Your task to perform on an android device: Show me recent news Image 0: 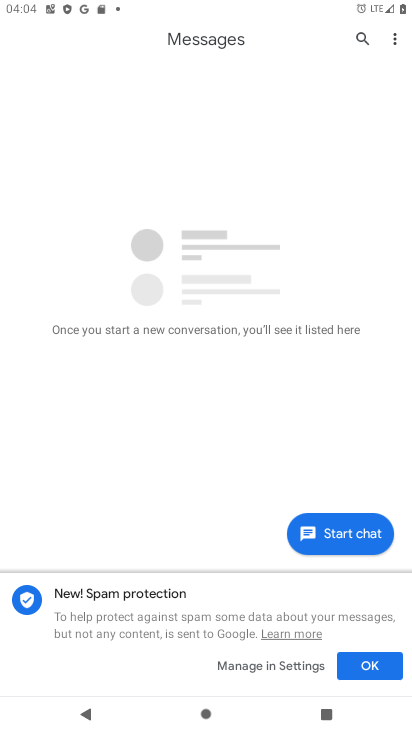
Step 0: press home button
Your task to perform on an android device: Show me recent news Image 1: 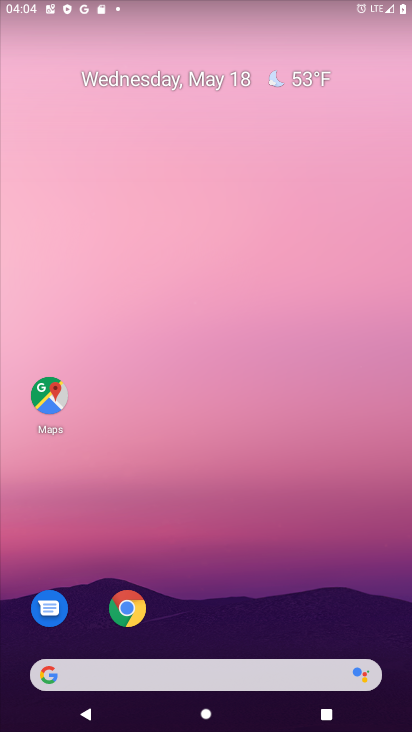
Step 1: click (127, 676)
Your task to perform on an android device: Show me recent news Image 2: 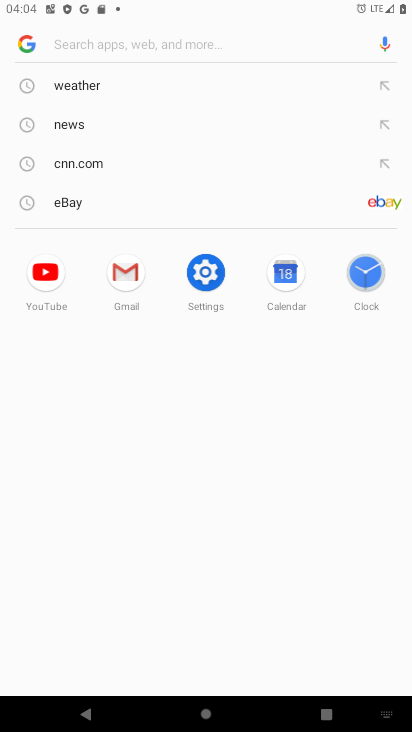
Step 2: click (80, 43)
Your task to perform on an android device: Show me recent news Image 3: 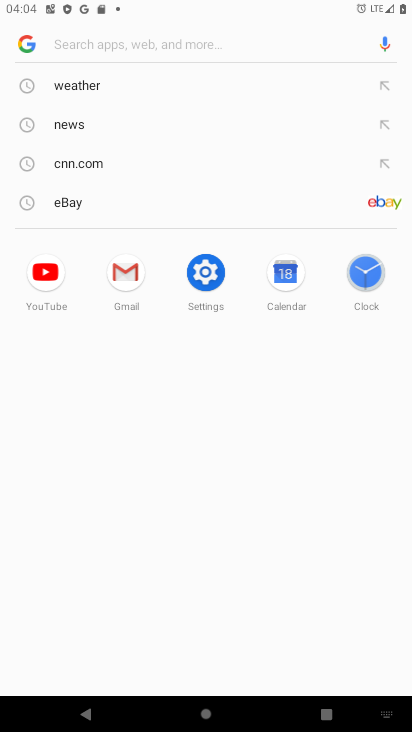
Step 3: type "recent news"
Your task to perform on an android device: Show me recent news Image 4: 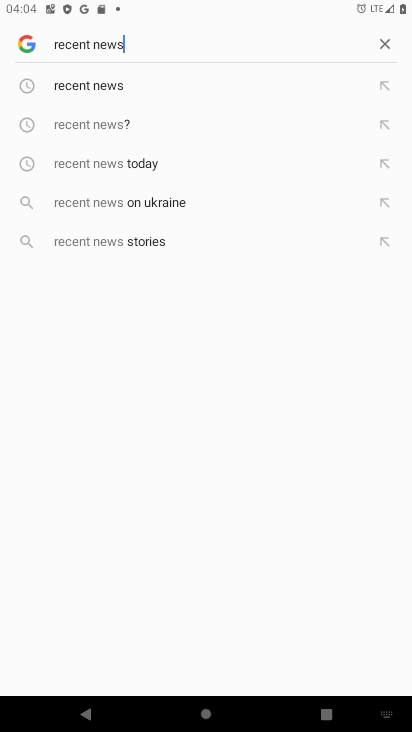
Step 4: click (81, 91)
Your task to perform on an android device: Show me recent news Image 5: 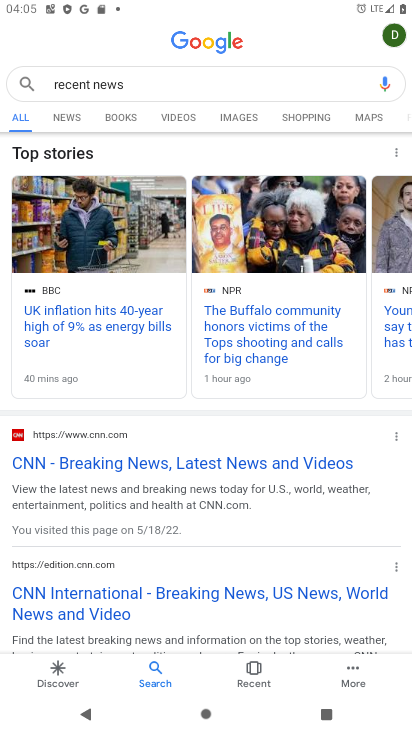
Step 5: click (76, 327)
Your task to perform on an android device: Show me recent news Image 6: 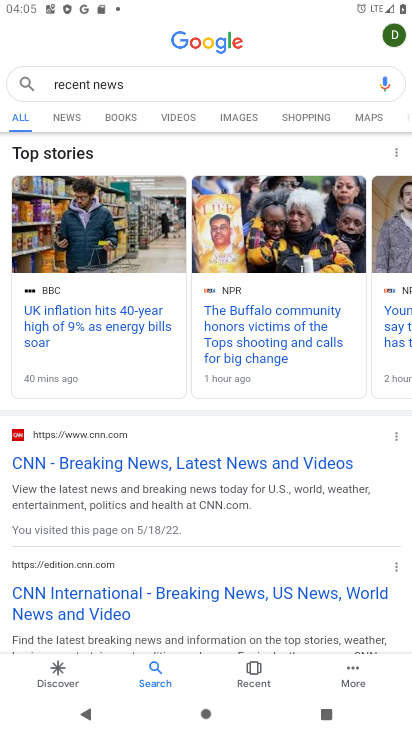
Step 6: click (78, 302)
Your task to perform on an android device: Show me recent news Image 7: 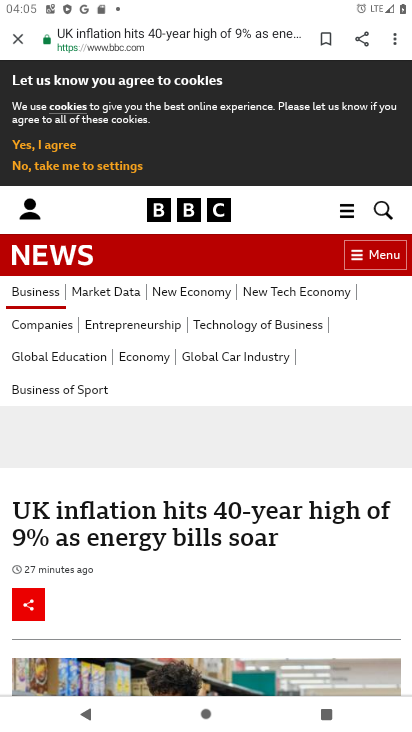
Step 7: task complete